Your task to perform on an android device: change text size in settings app Image 0: 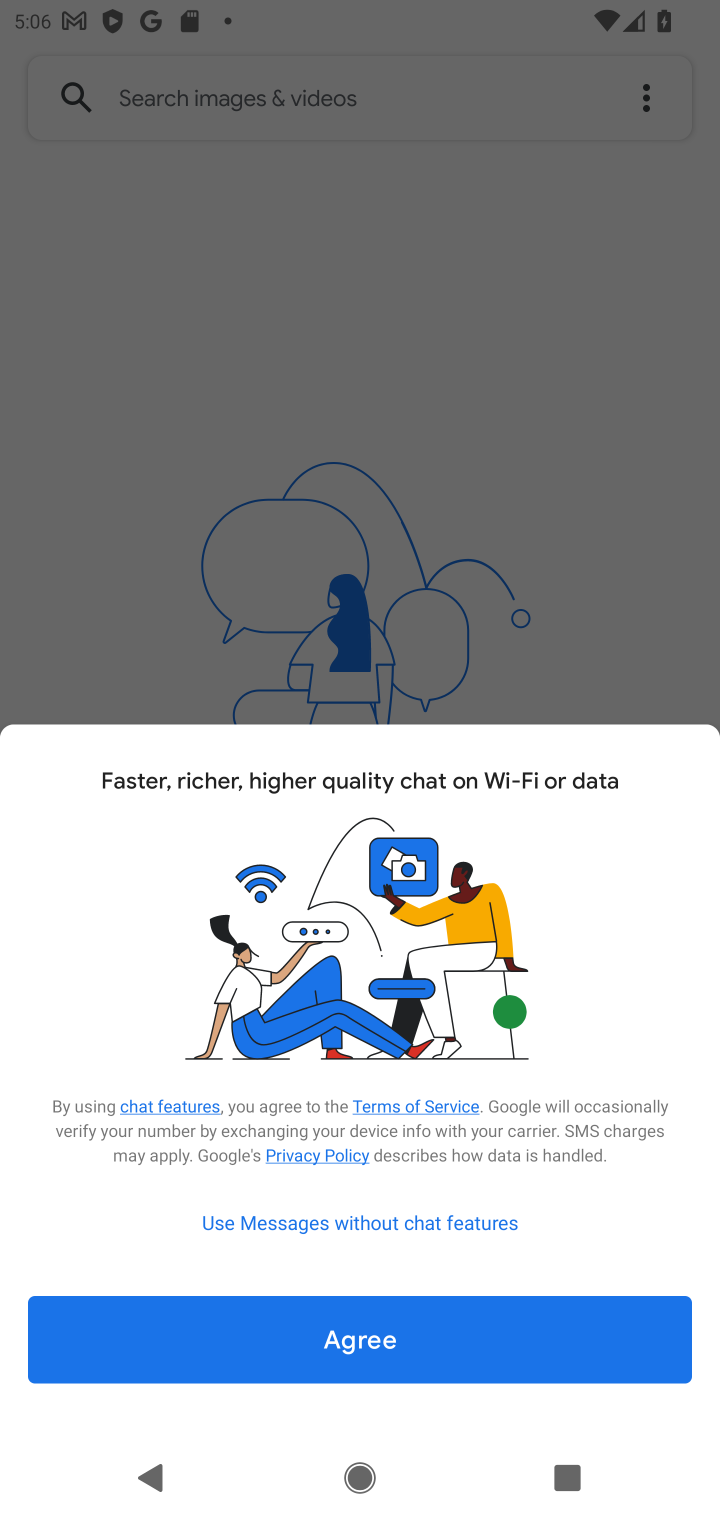
Step 0: press home button
Your task to perform on an android device: change text size in settings app Image 1: 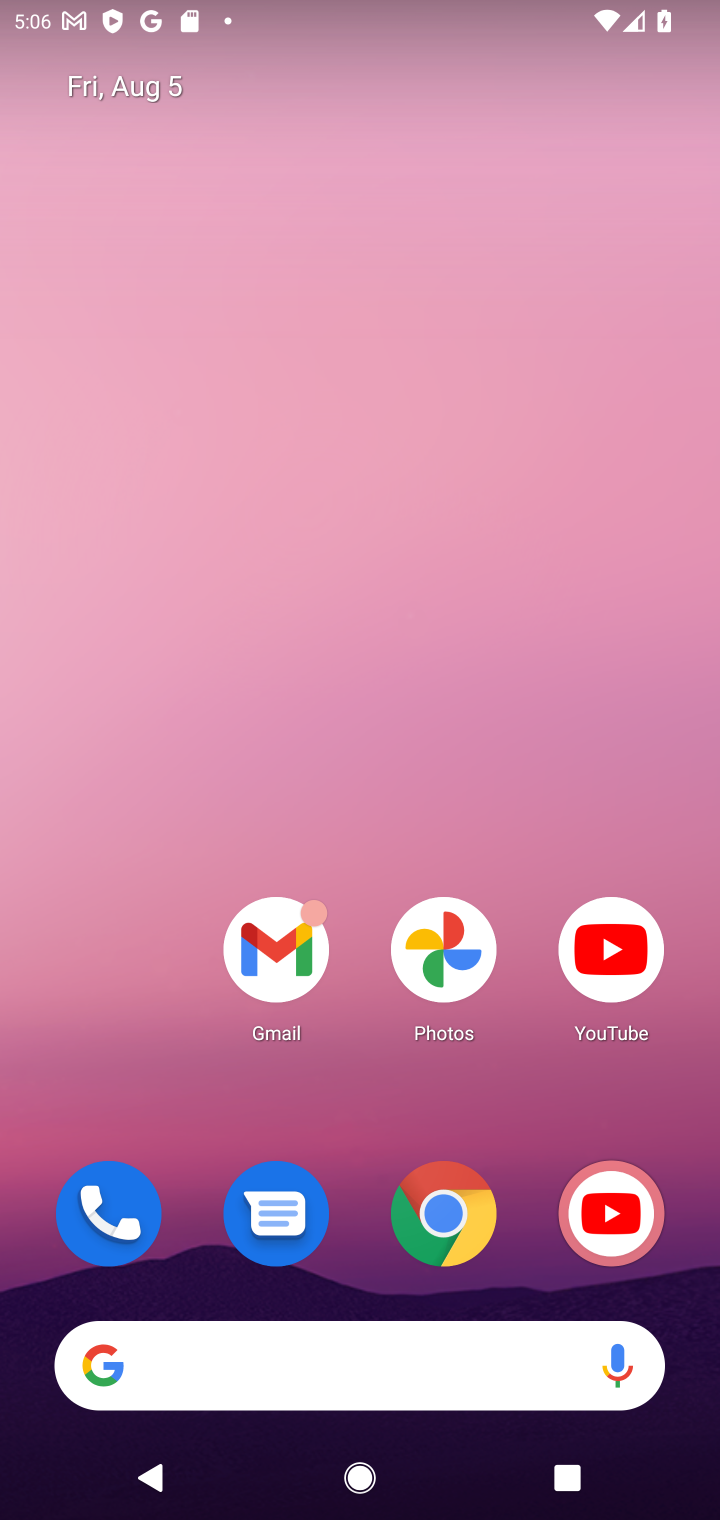
Step 1: drag from (366, 1279) to (359, 63)
Your task to perform on an android device: change text size in settings app Image 2: 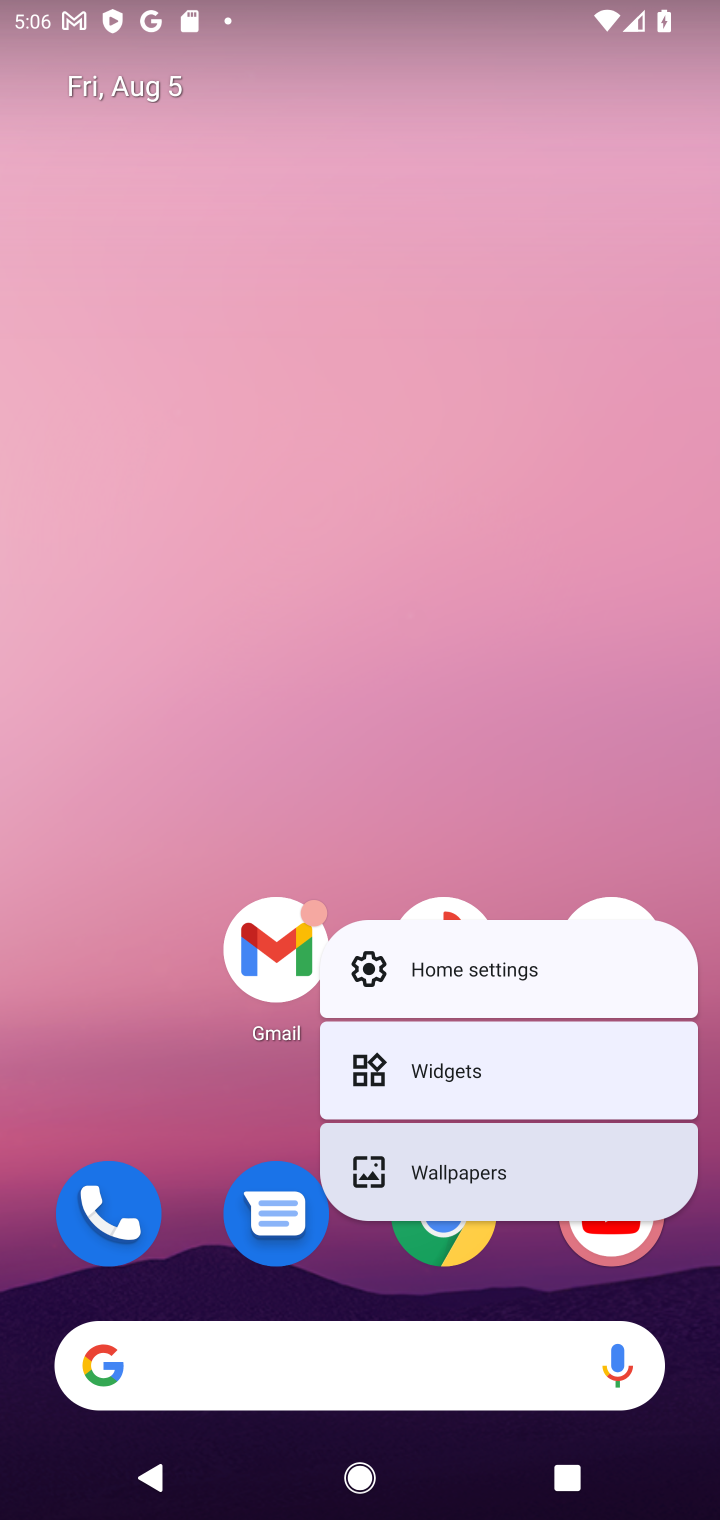
Step 2: click (251, 403)
Your task to perform on an android device: change text size in settings app Image 3: 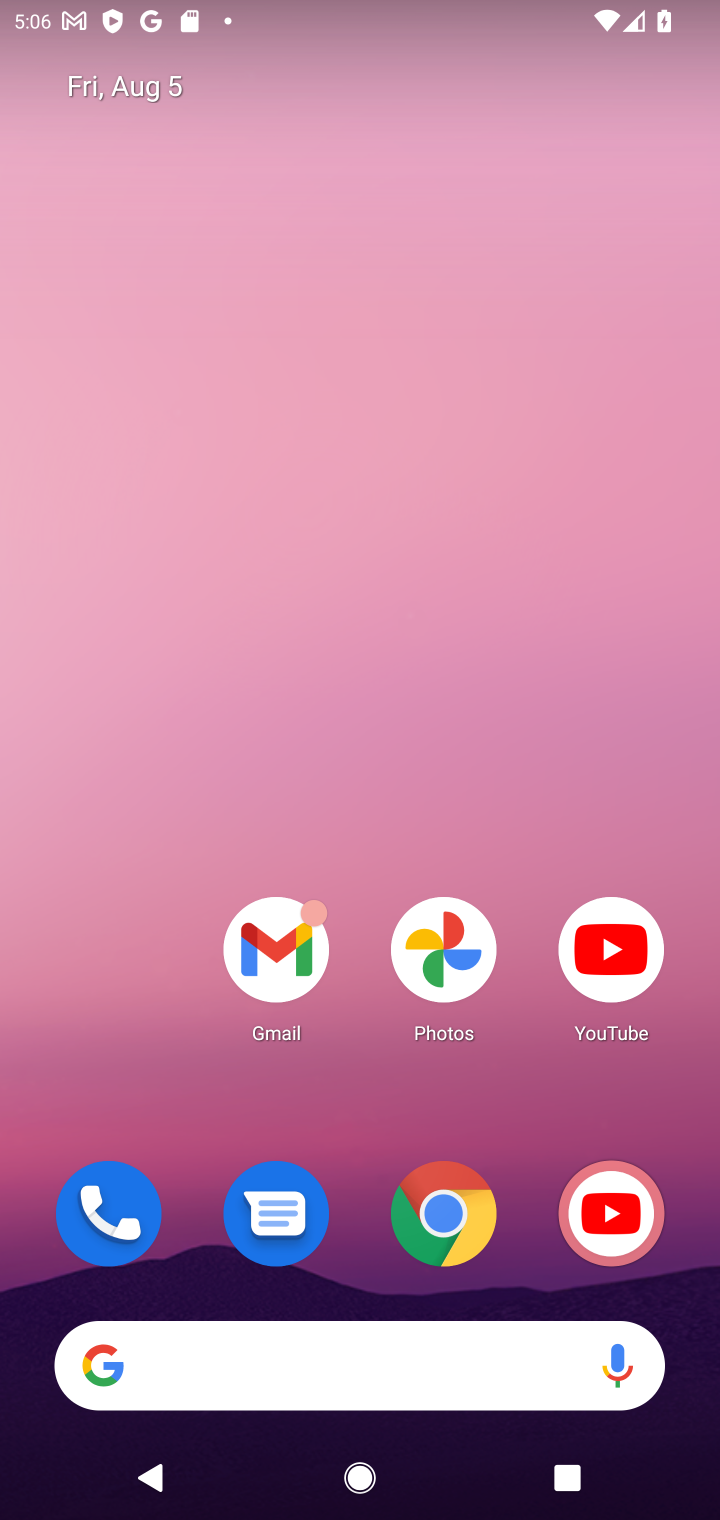
Step 3: drag from (184, 1277) to (267, 256)
Your task to perform on an android device: change text size in settings app Image 4: 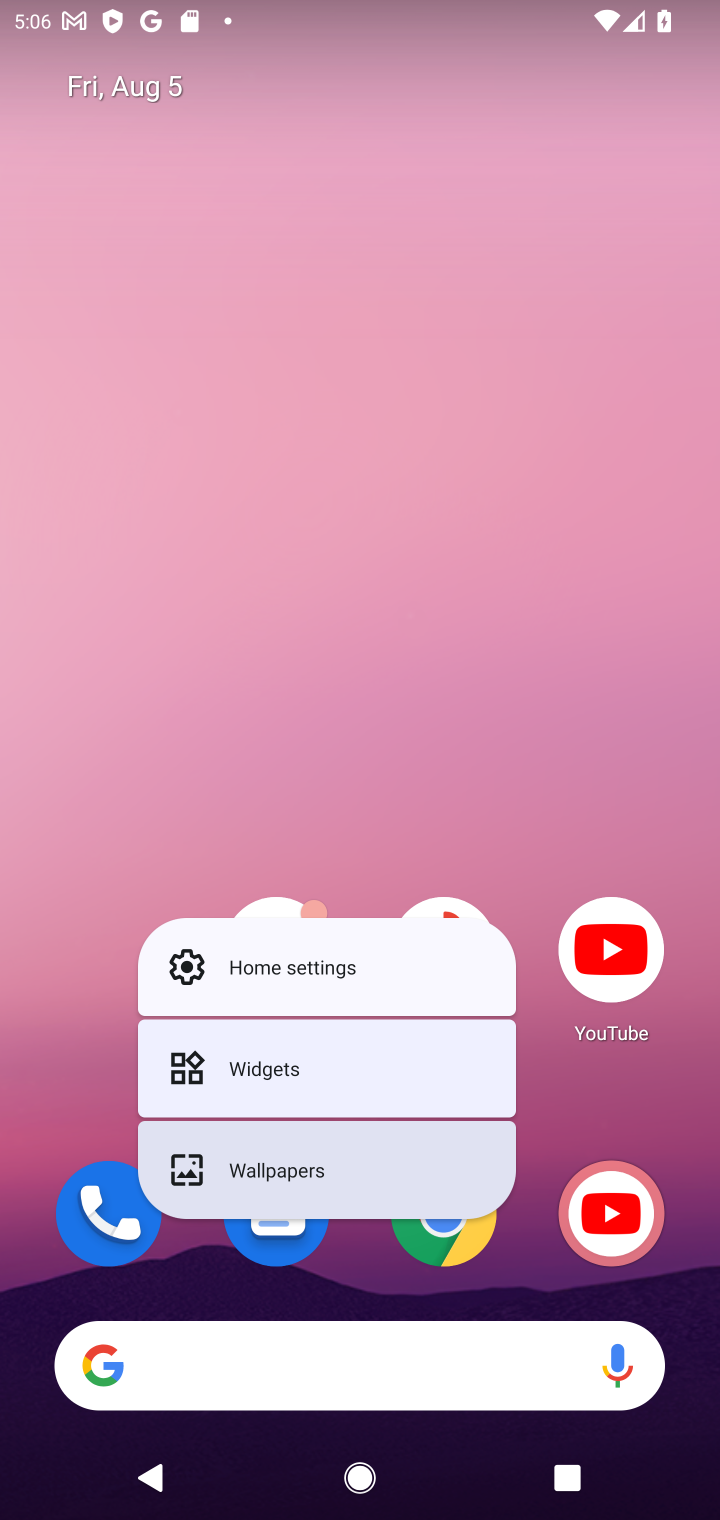
Step 4: click (267, 256)
Your task to perform on an android device: change text size in settings app Image 5: 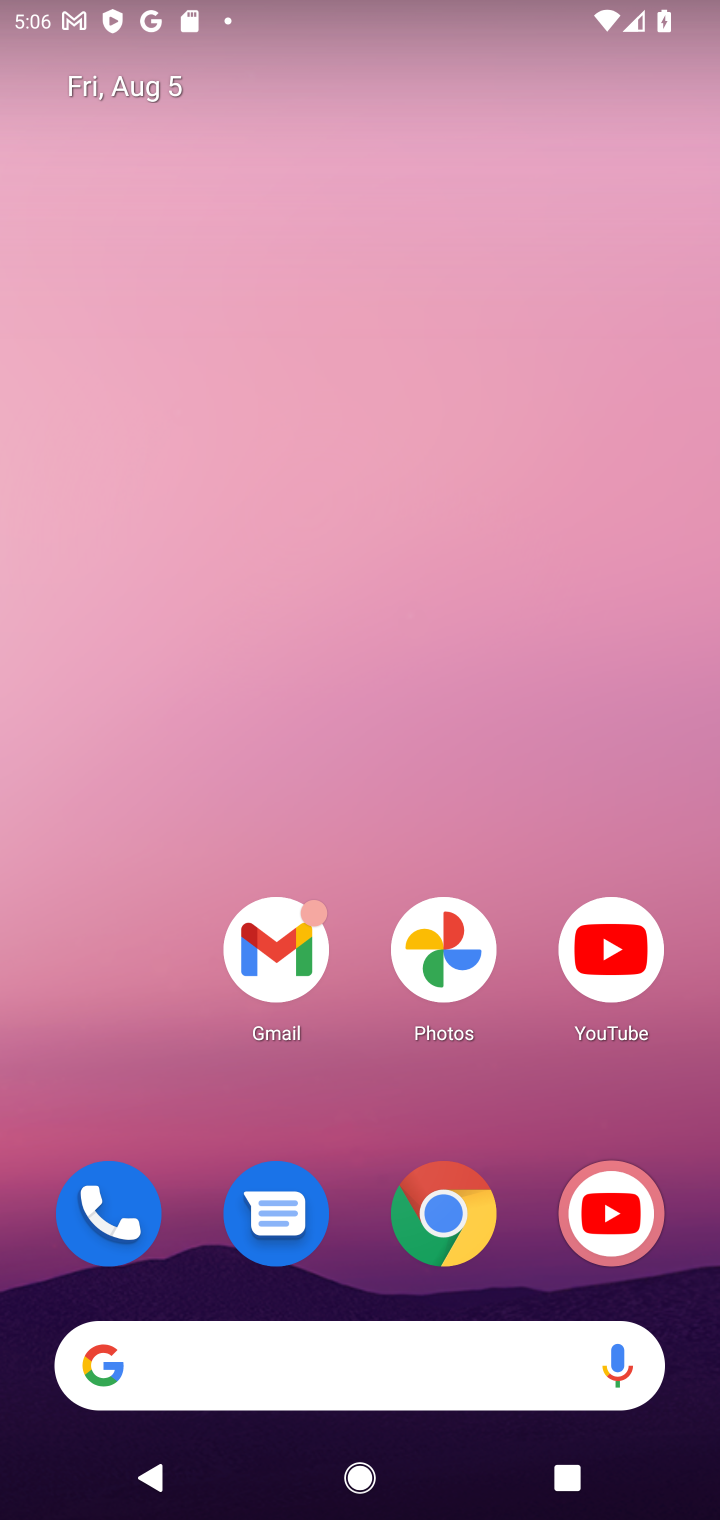
Step 5: drag from (524, 1297) to (272, 32)
Your task to perform on an android device: change text size in settings app Image 6: 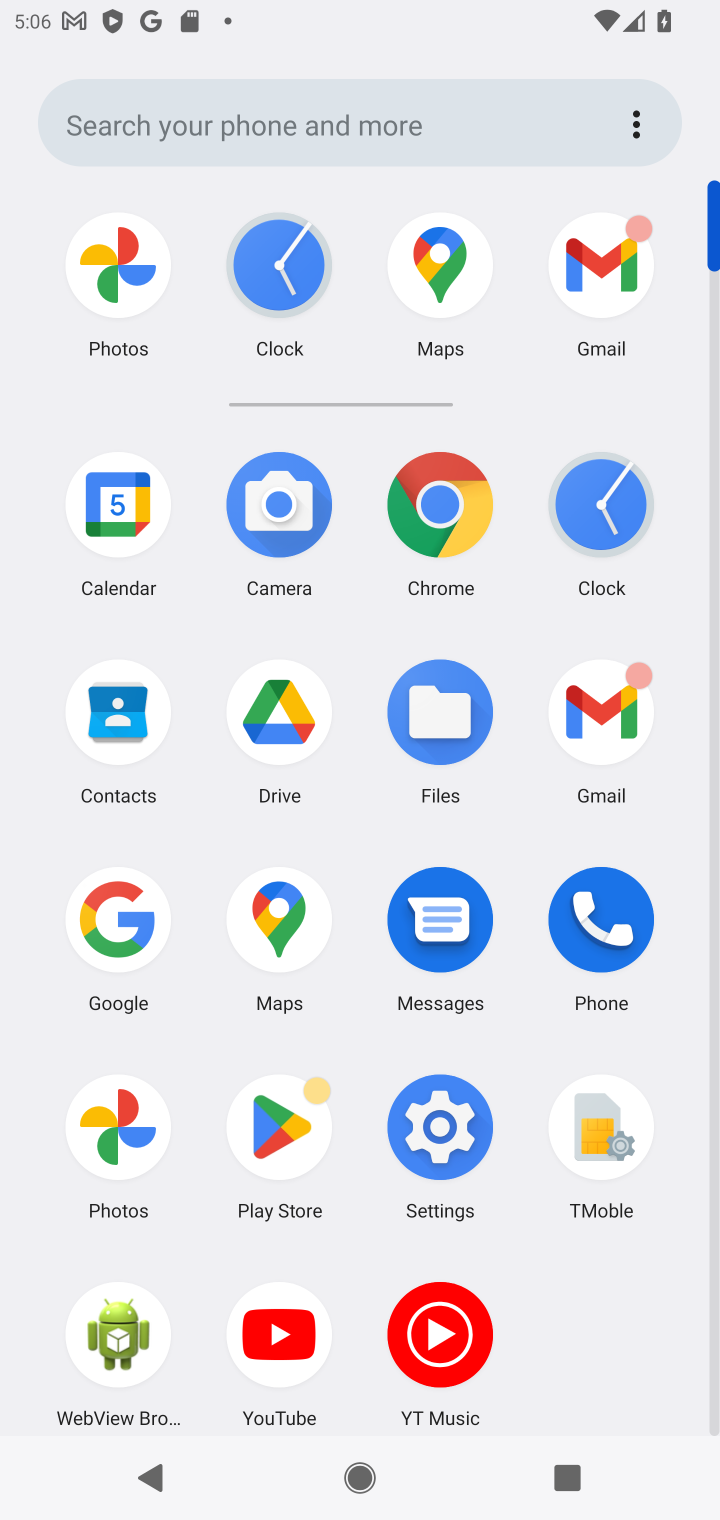
Step 6: click (425, 1123)
Your task to perform on an android device: change text size in settings app Image 7: 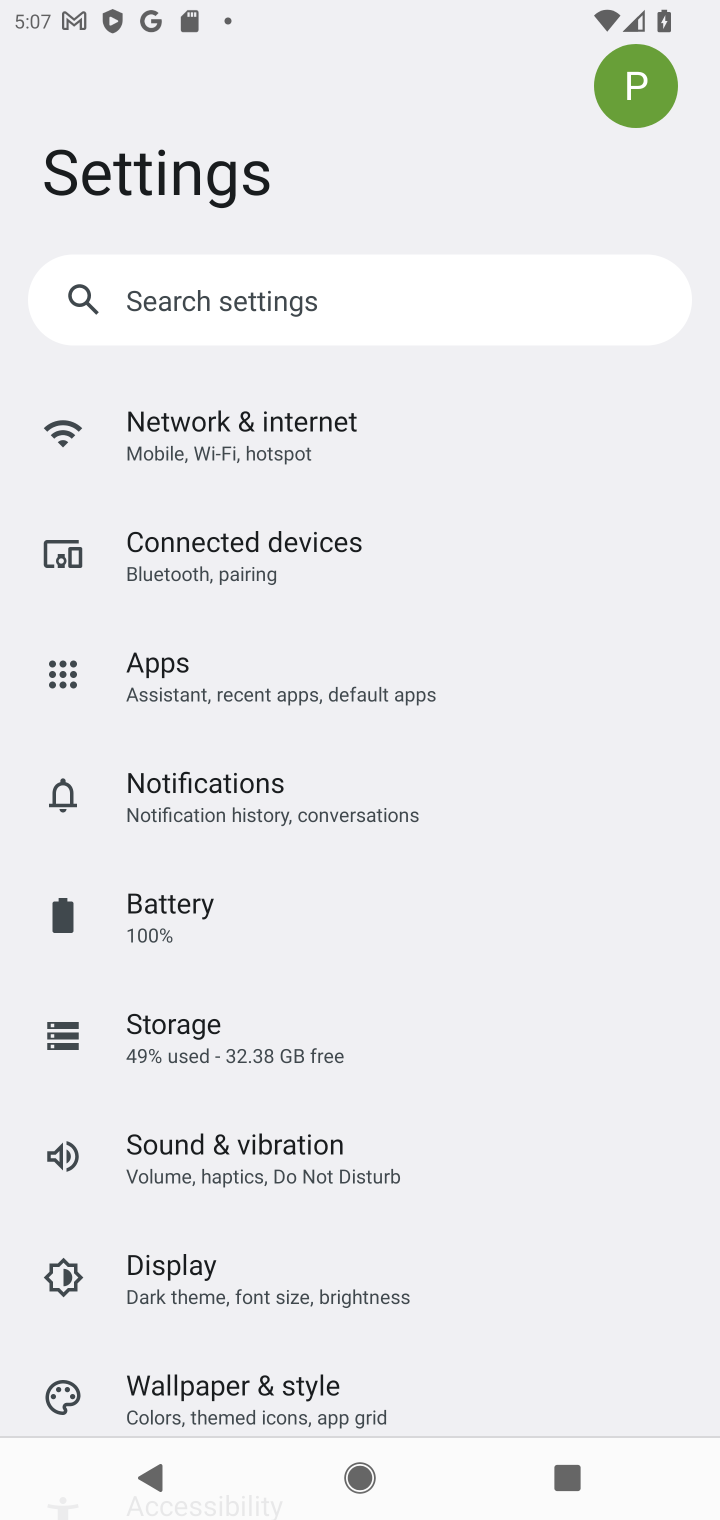
Step 7: task complete